Your task to perform on an android device: Go to wifi settings Image 0: 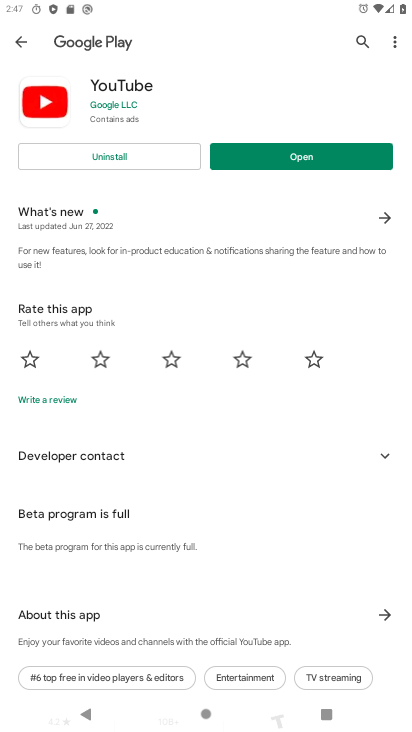
Step 0: press home button
Your task to perform on an android device: Go to wifi settings Image 1: 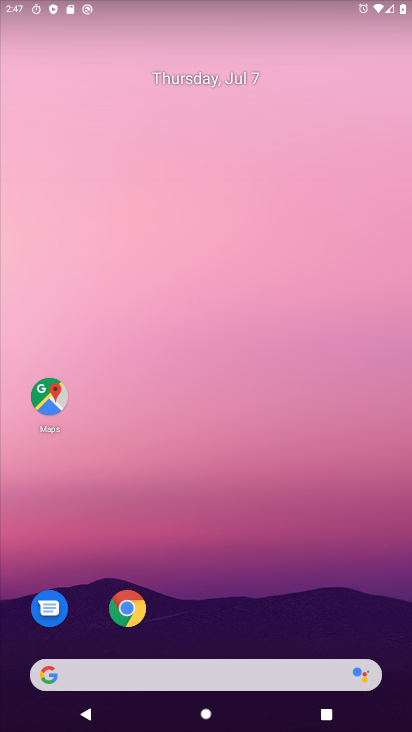
Step 1: drag from (270, 682) to (274, 65)
Your task to perform on an android device: Go to wifi settings Image 2: 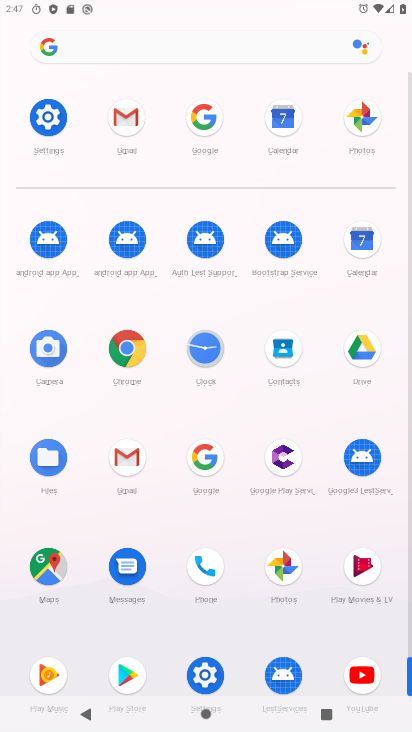
Step 2: click (48, 121)
Your task to perform on an android device: Go to wifi settings Image 3: 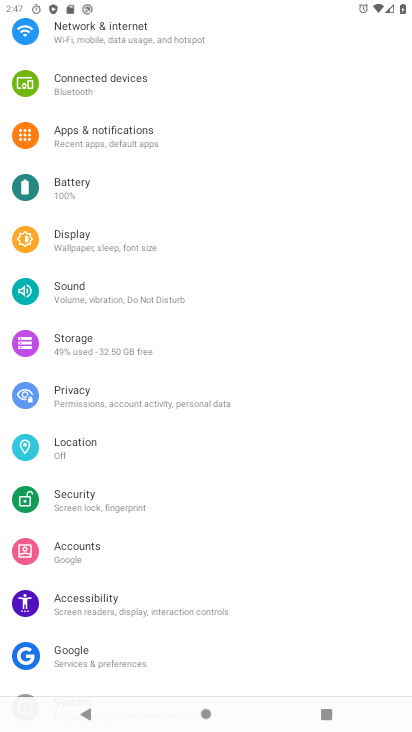
Step 3: click (121, 35)
Your task to perform on an android device: Go to wifi settings Image 4: 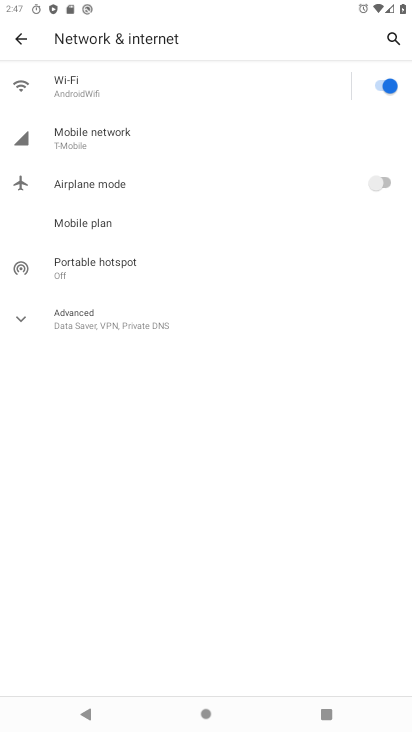
Step 4: click (84, 82)
Your task to perform on an android device: Go to wifi settings Image 5: 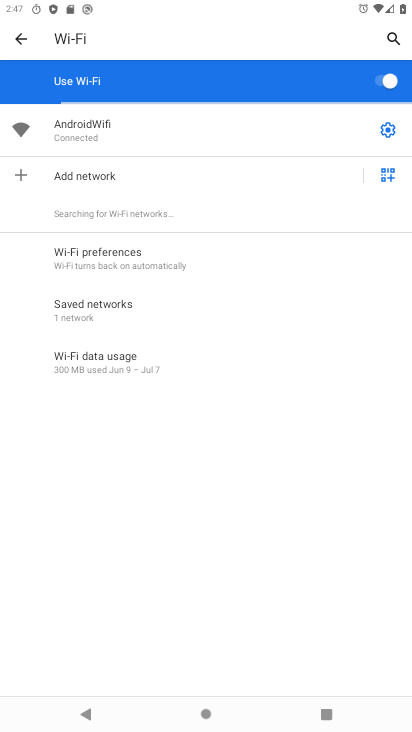
Step 5: task complete